Your task to perform on an android device: star an email in the gmail app Image 0: 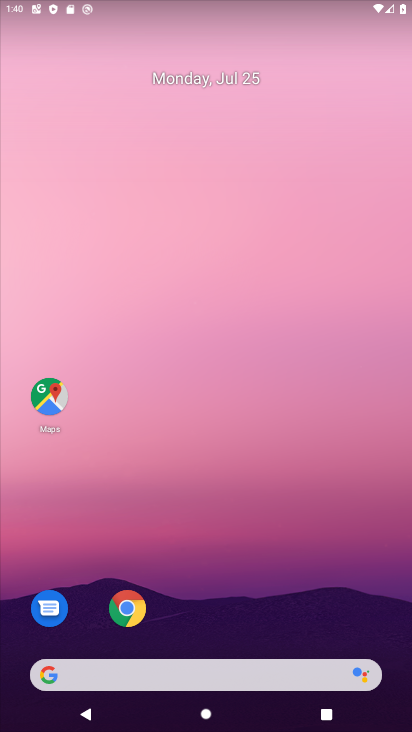
Step 0: drag from (266, 606) to (224, 226)
Your task to perform on an android device: star an email in the gmail app Image 1: 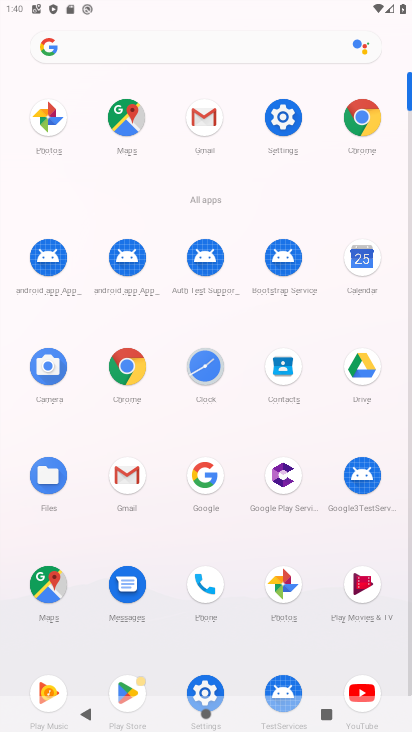
Step 1: click (200, 117)
Your task to perform on an android device: star an email in the gmail app Image 2: 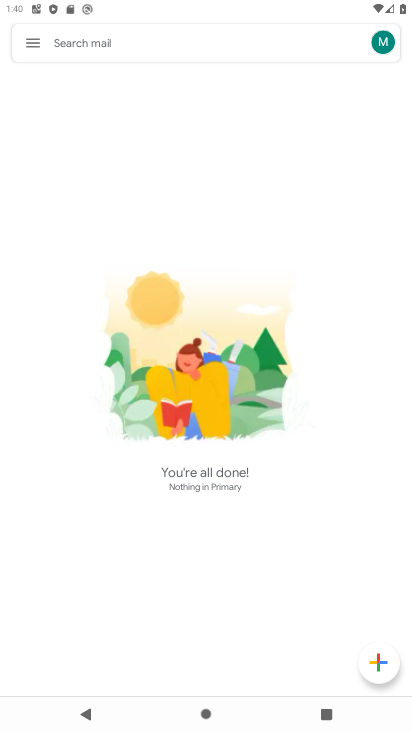
Step 2: click (27, 41)
Your task to perform on an android device: star an email in the gmail app Image 3: 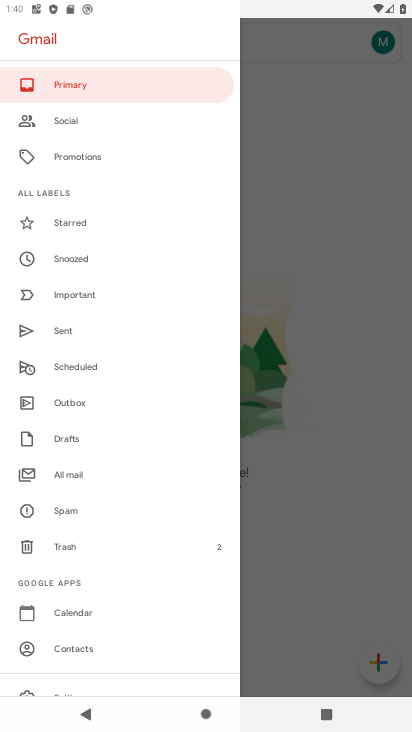
Step 3: drag from (154, 54) to (90, 294)
Your task to perform on an android device: star an email in the gmail app Image 4: 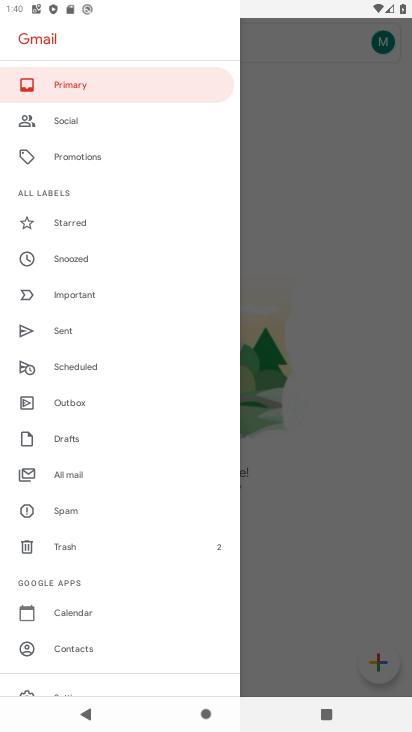
Step 4: click (69, 226)
Your task to perform on an android device: star an email in the gmail app Image 5: 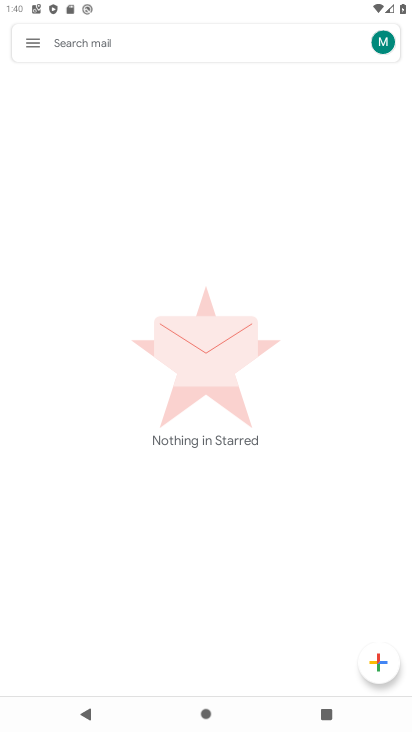
Step 5: task complete